Your task to perform on an android device: toggle javascript in the chrome app Image 0: 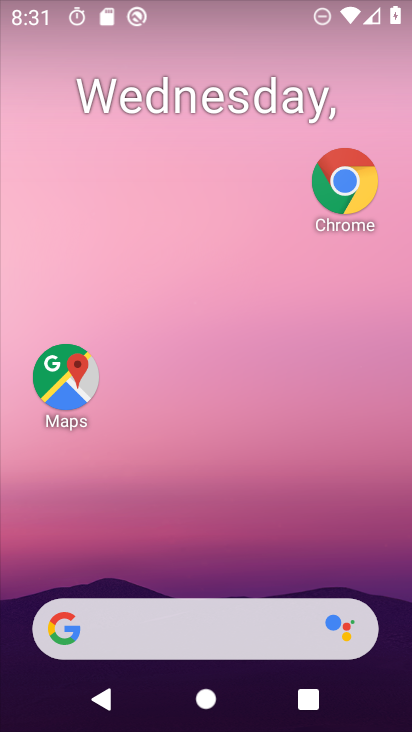
Step 0: drag from (256, 675) to (205, 240)
Your task to perform on an android device: toggle javascript in the chrome app Image 1: 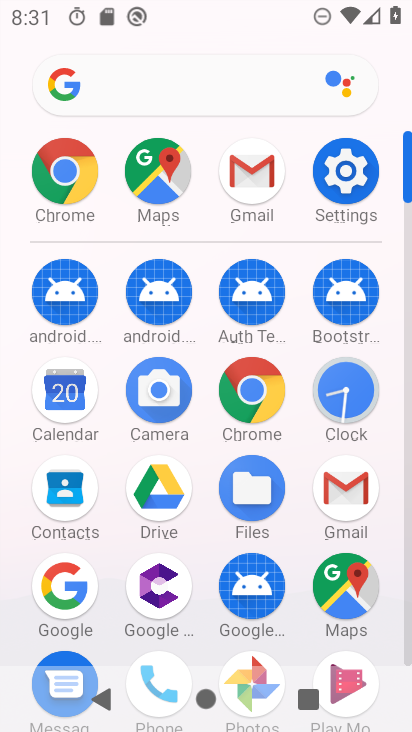
Step 1: click (256, 365)
Your task to perform on an android device: toggle javascript in the chrome app Image 2: 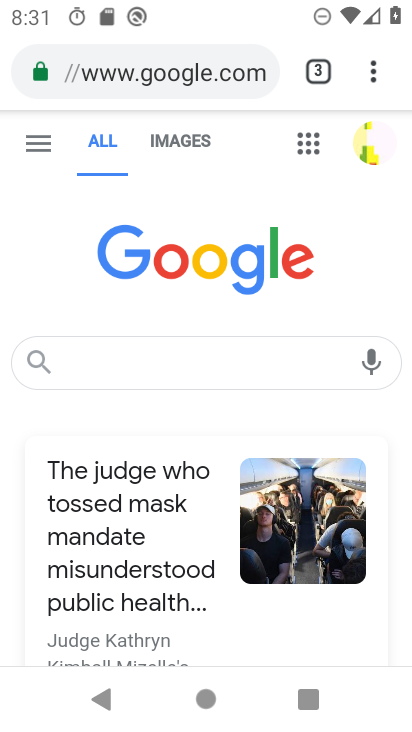
Step 2: click (320, 74)
Your task to perform on an android device: toggle javascript in the chrome app Image 3: 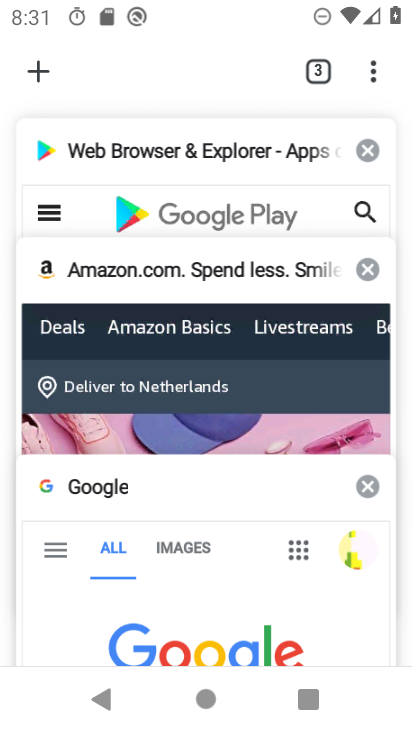
Step 3: click (44, 68)
Your task to perform on an android device: toggle javascript in the chrome app Image 4: 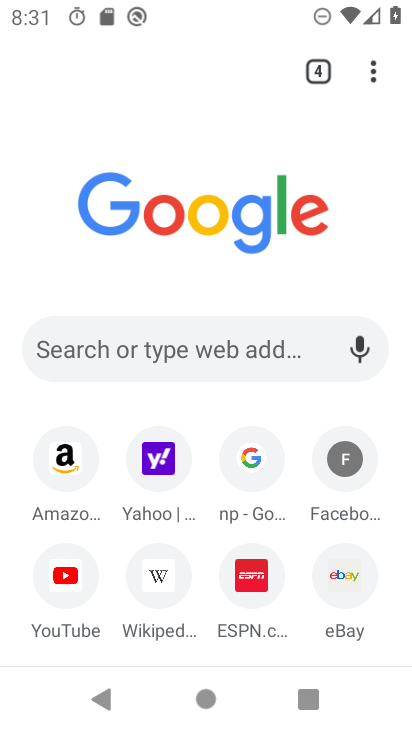
Step 4: click (369, 75)
Your task to perform on an android device: toggle javascript in the chrome app Image 5: 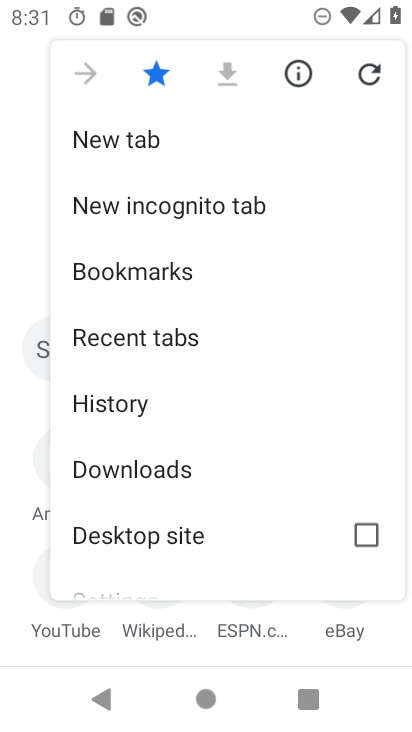
Step 5: click (109, 580)
Your task to perform on an android device: toggle javascript in the chrome app Image 6: 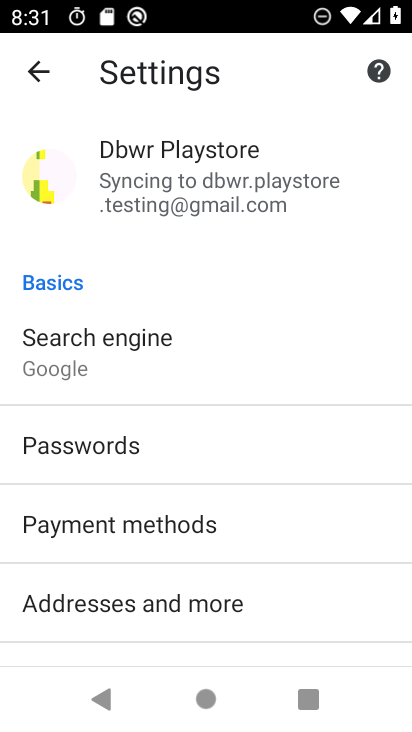
Step 6: drag from (132, 561) to (172, 270)
Your task to perform on an android device: toggle javascript in the chrome app Image 7: 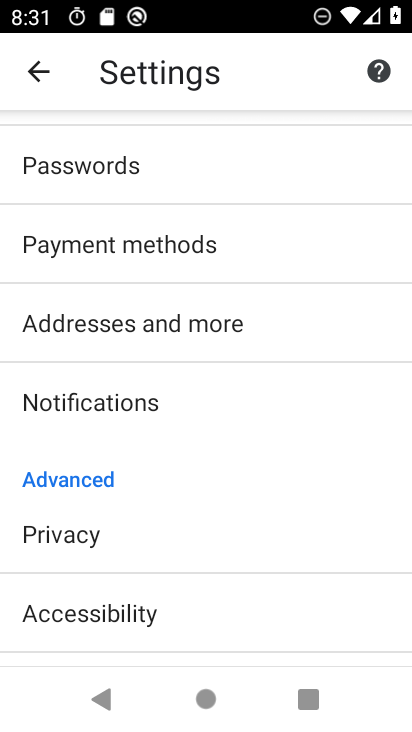
Step 7: drag from (153, 408) to (165, 292)
Your task to perform on an android device: toggle javascript in the chrome app Image 8: 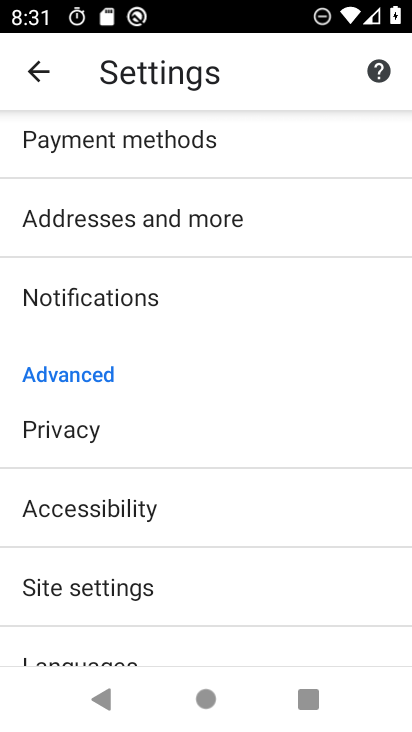
Step 8: drag from (83, 509) to (106, 363)
Your task to perform on an android device: toggle javascript in the chrome app Image 9: 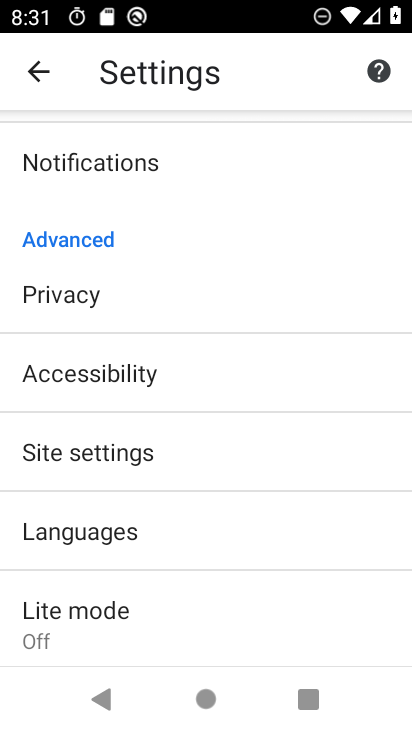
Step 9: drag from (149, 573) to (147, 486)
Your task to perform on an android device: toggle javascript in the chrome app Image 10: 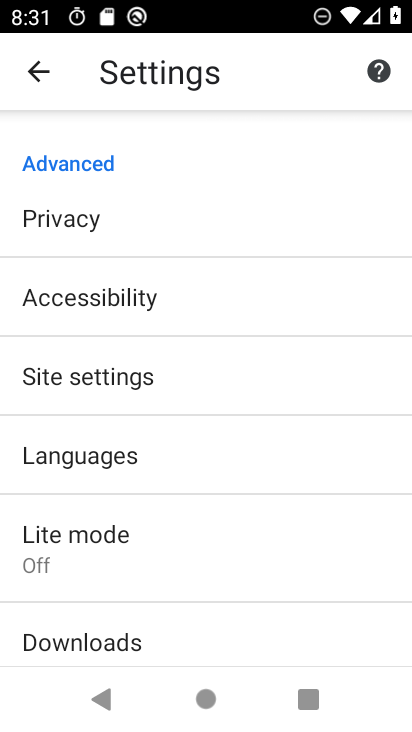
Step 10: drag from (119, 540) to (116, 406)
Your task to perform on an android device: toggle javascript in the chrome app Image 11: 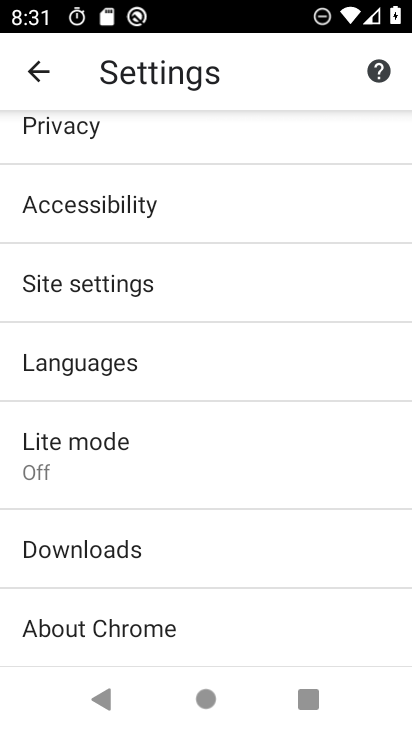
Step 11: click (130, 280)
Your task to perform on an android device: toggle javascript in the chrome app Image 12: 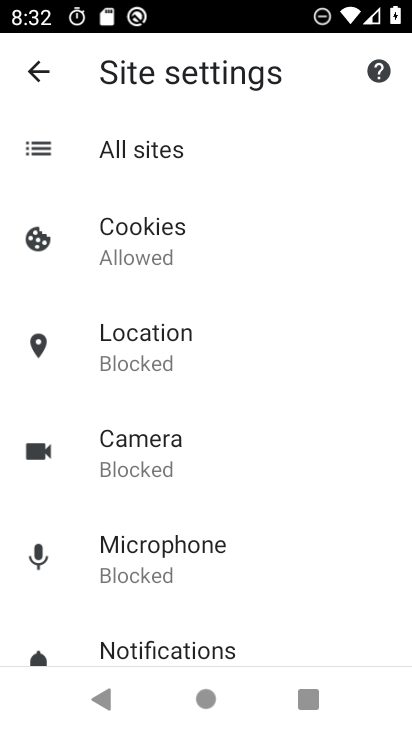
Step 12: drag from (168, 577) to (187, 415)
Your task to perform on an android device: toggle javascript in the chrome app Image 13: 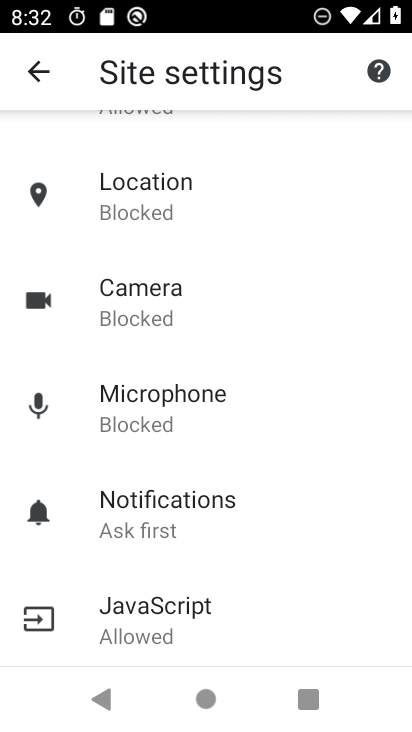
Step 13: click (130, 601)
Your task to perform on an android device: toggle javascript in the chrome app Image 14: 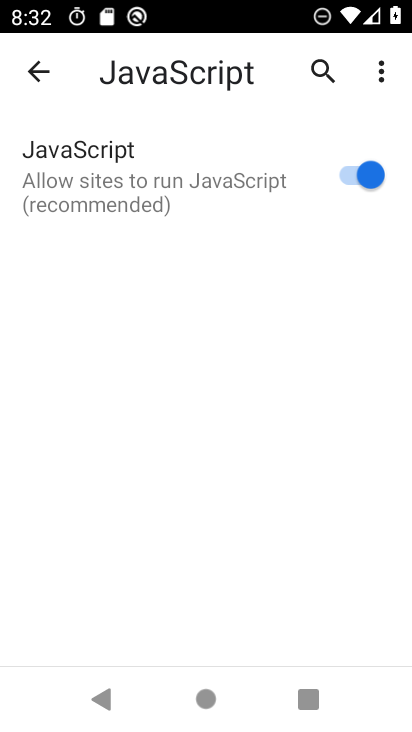
Step 14: task complete